Your task to perform on an android device: see sites visited before in the chrome app Image 0: 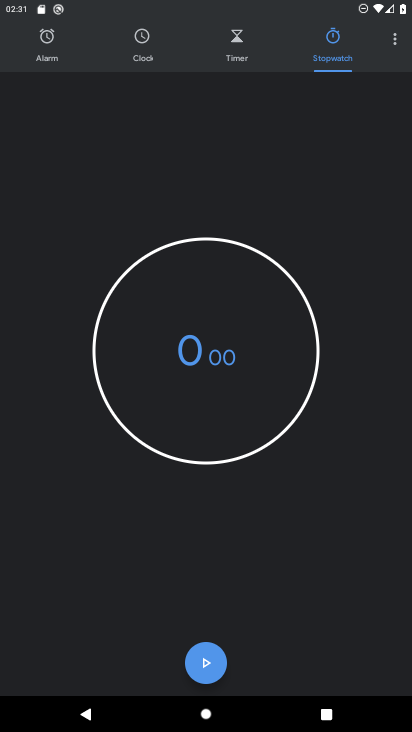
Step 0: press home button
Your task to perform on an android device: see sites visited before in the chrome app Image 1: 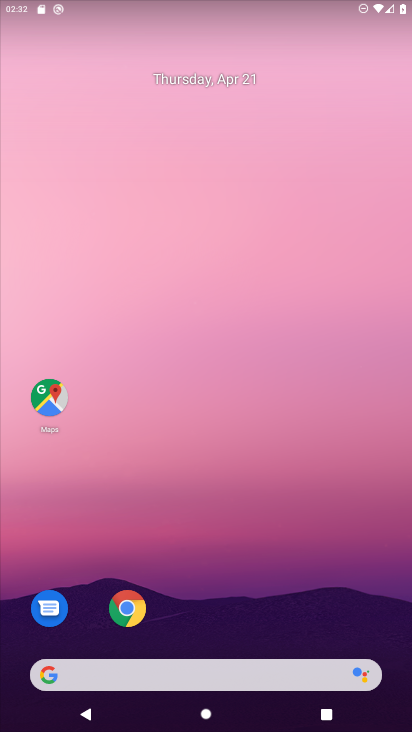
Step 1: click (140, 595)
Your task to perform on an android device: see sites visited before in the chrome app Image 2: 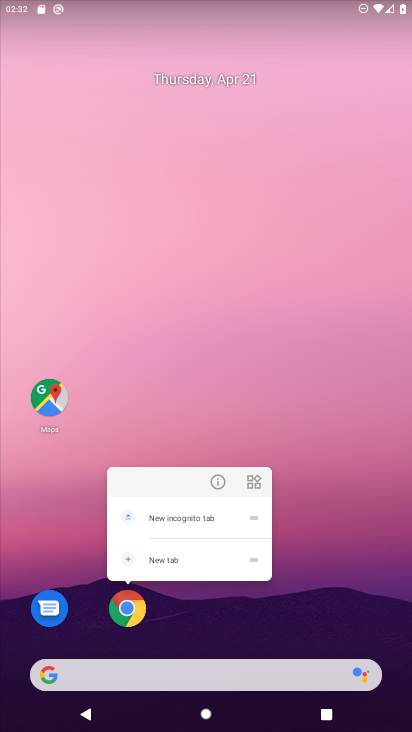
Step 2: click (136, 598)
Your task to perform on an android device: see sites visited before in the chrome app Image 3: 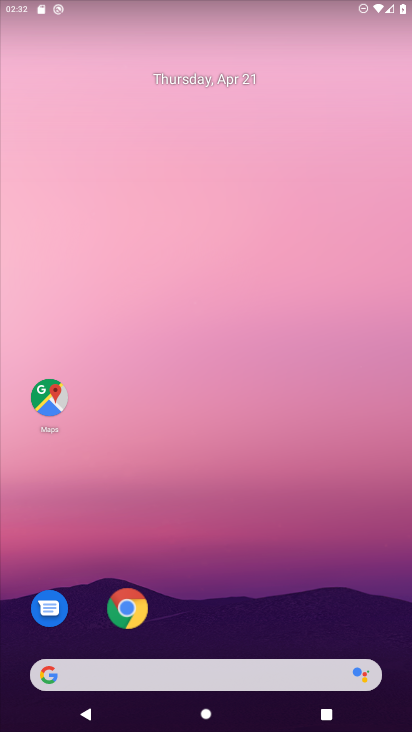
Step 3: click (132, 604)
Your task to perform on an android device: see sites visited before in the chrome app Image 4: 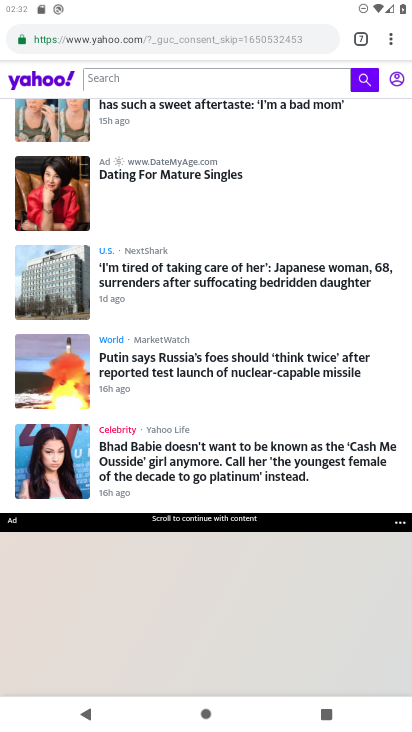
Step 4: click (389, 31)
Your task to perform on an android device: see sites visited before in the chrome app Image 5: 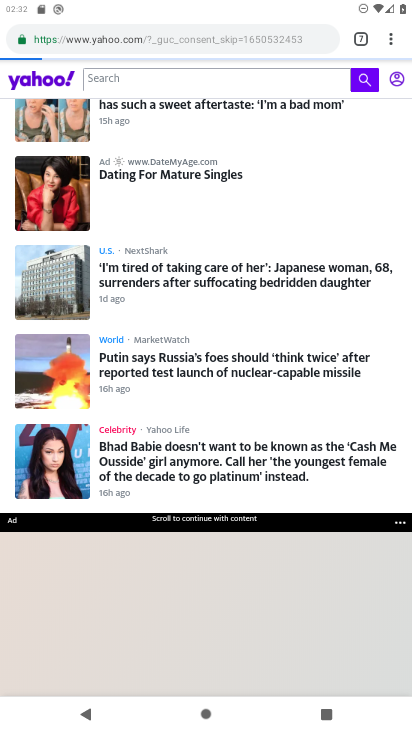
Step 5: click (390, 35)
Your task to perform on an android device: see sites visited before in the chrome app Image 6: 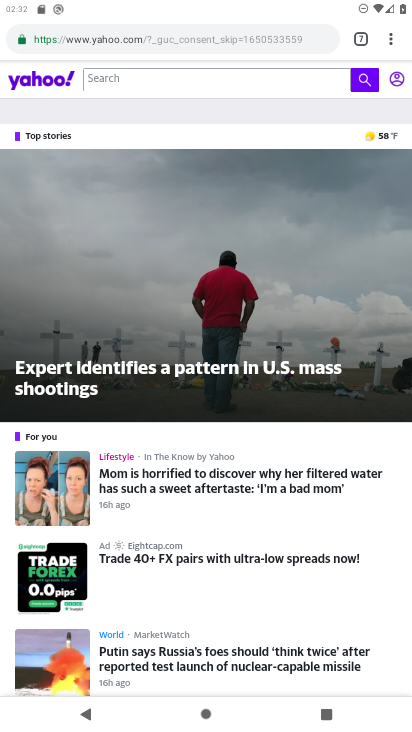
Step 6: click (380, 37)
Your task to perform on an android device: see sites visited before in the chrome app Image 7: 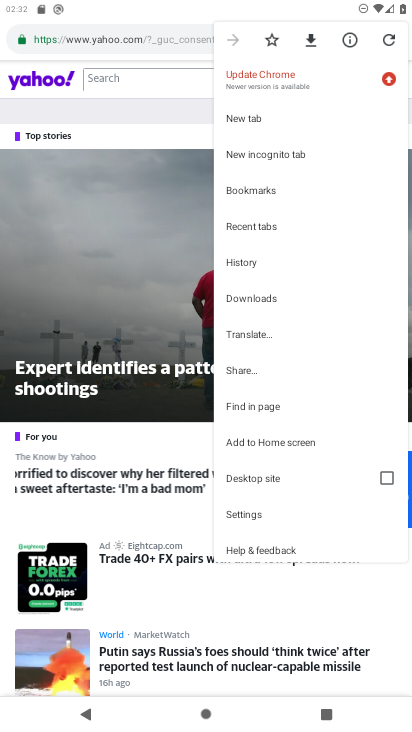
Step 7: click (259, 264)
Your task to perform on an android device: see sites visited before in the chrome app Image 8: 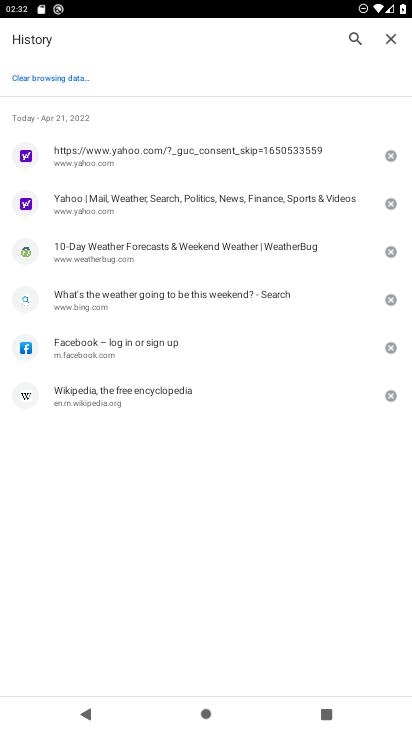
Step 8: task complete